Your task to perform on an android device: What's on my calendar today? Image 0: 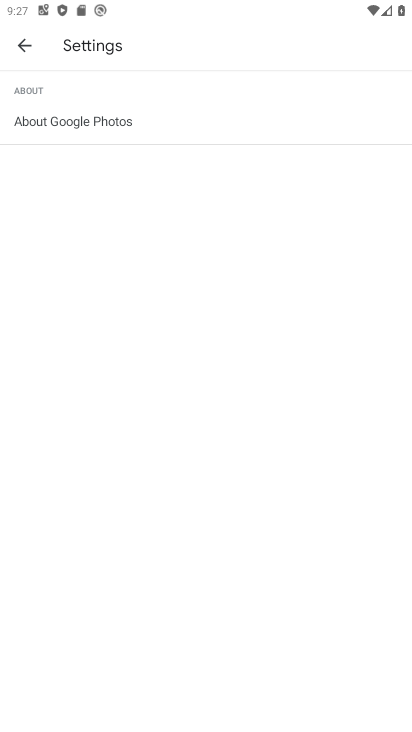
Step 0: press home button
Your task to perform on an android device: What's on my calendar today? Image 1: 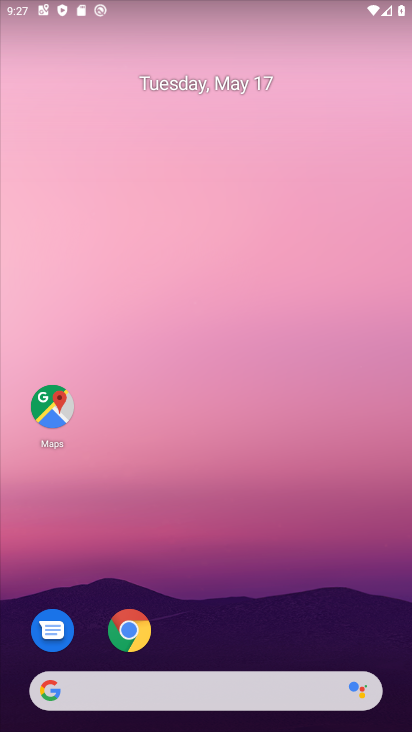
Step 1: click (243, 84)
Your task to perform on an android device: What's on my calendar today? Image 2: 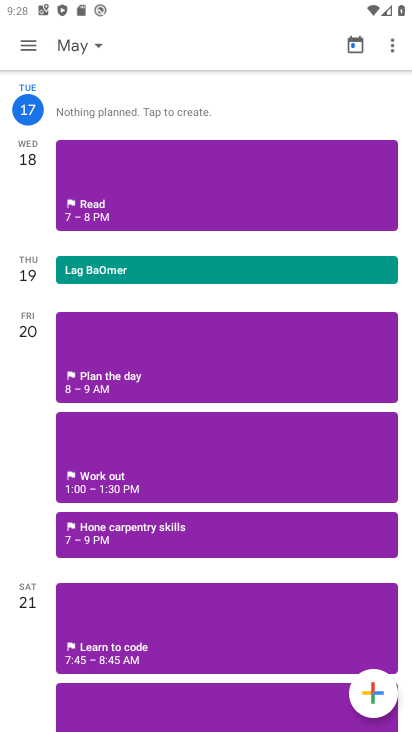
Step 2: task complete